Your task to perform on an android device: Open maps Image 0: 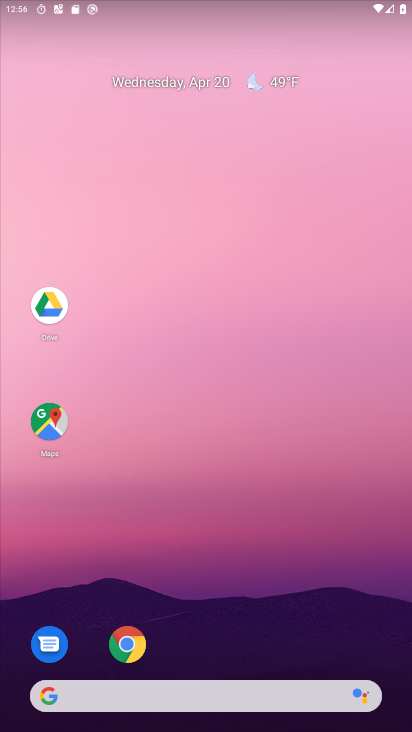
Step 0: click (46, 415)
Your task to perform on an android device: Open maps Image 1: 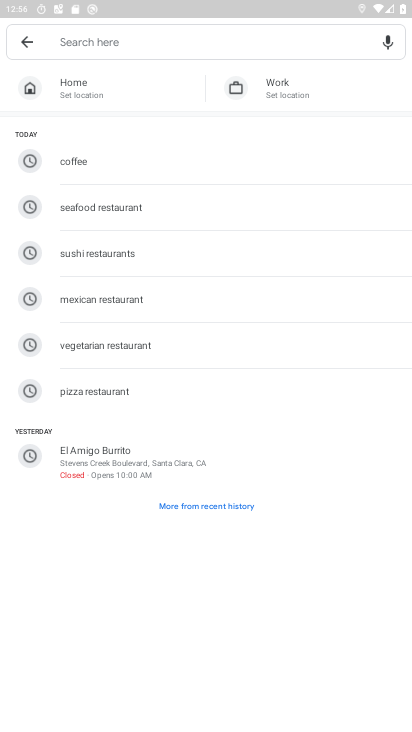
Step 1: click (26, 45)
Your task to perform on an android device: Open maps Image 2: 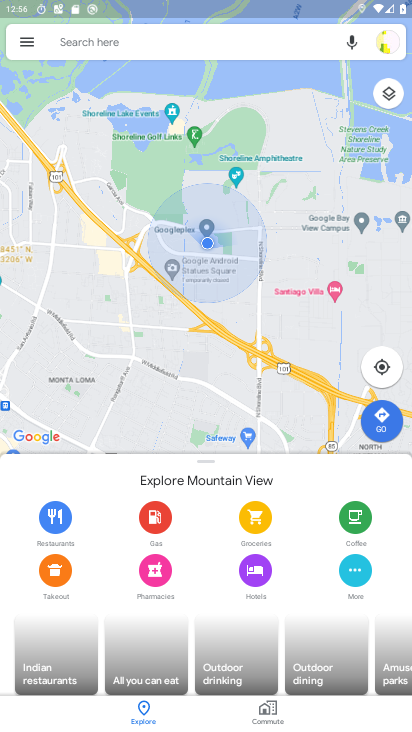
Step 2: task complete